Your task to perform on an android device: Play the last video I watched on Youtube Image 0: 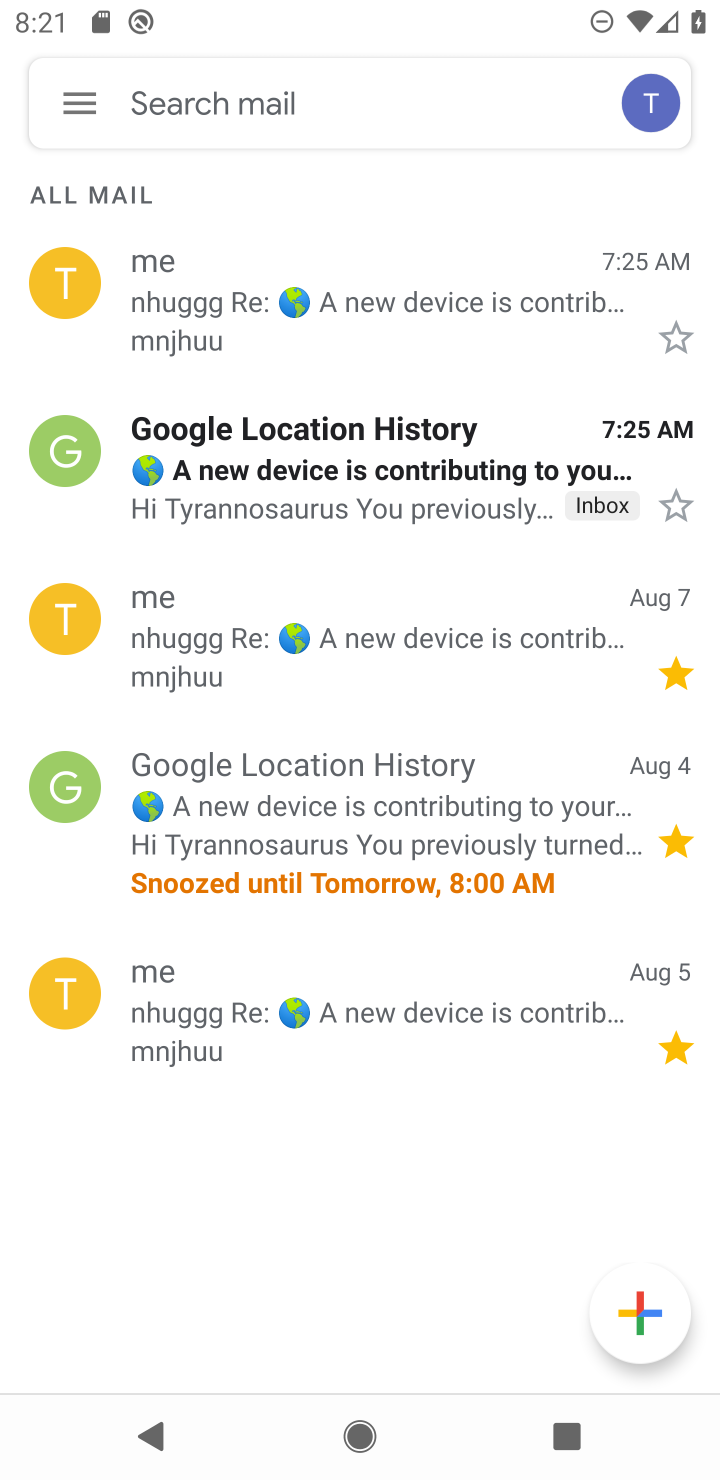
Step 0: press home button
Your task to perform on an android device: Play the last video I watched on Youtube Image 1: 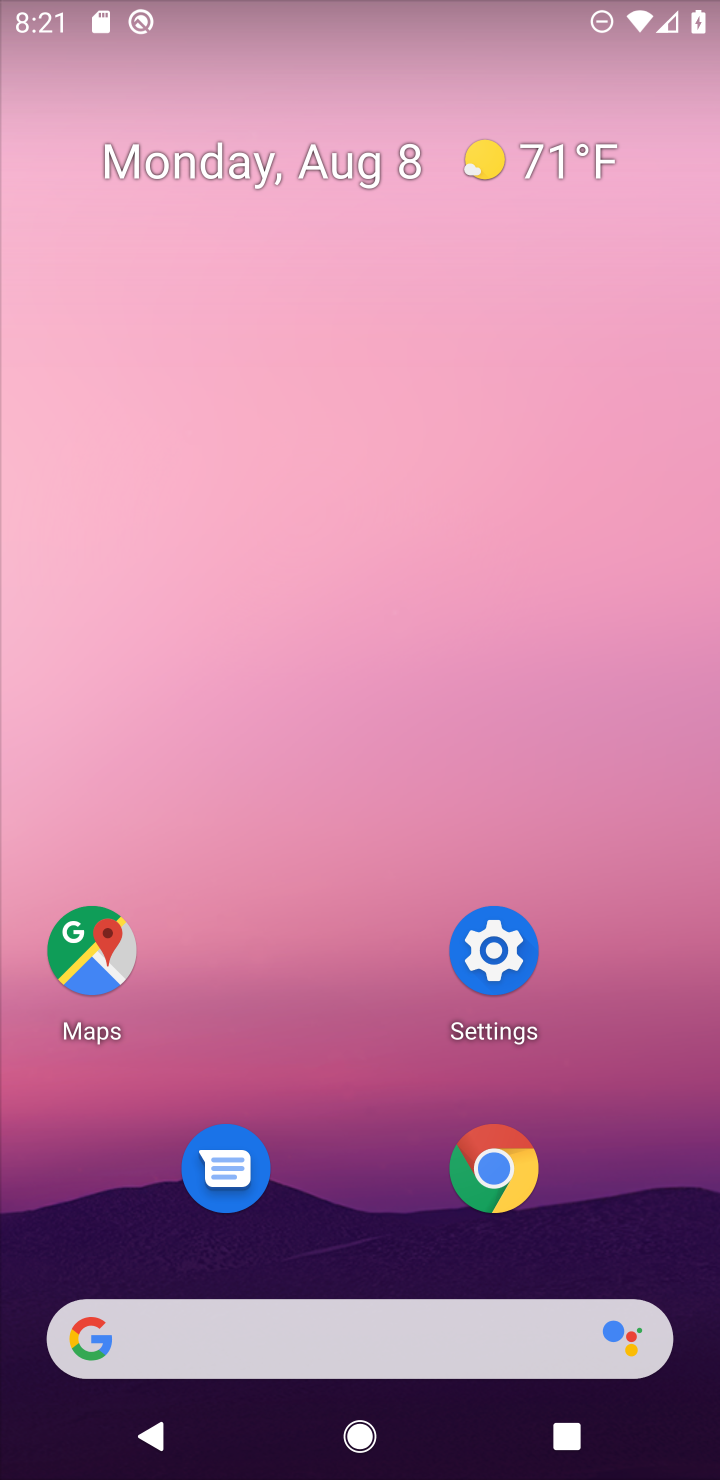
Step 1: drag from (362, 1304) to (459, 364)
Your task to perform on an android device: Play the last video I watched on Youtube Image 2: 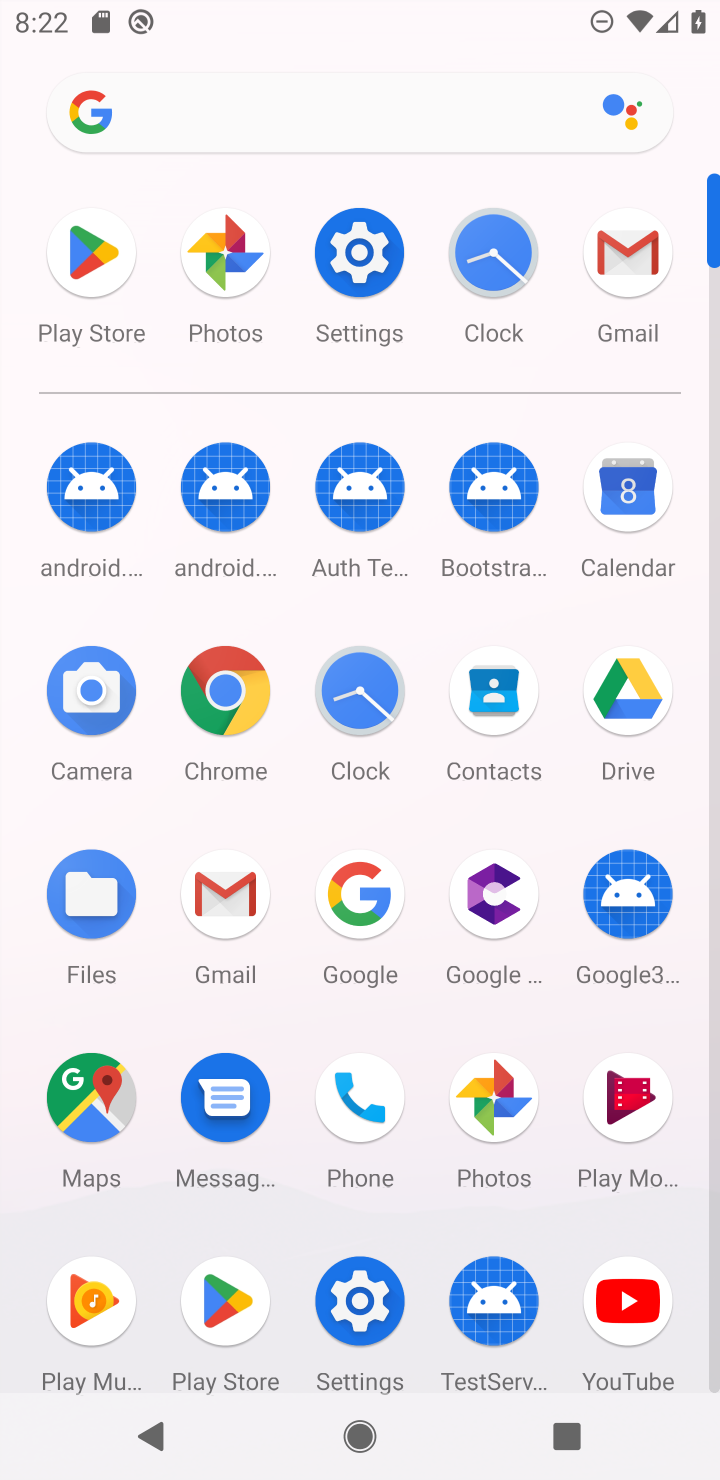
Step 2: click (631, 1301)
Your task to perform on an android device: Play the last video I watched on Youtube Image 3: 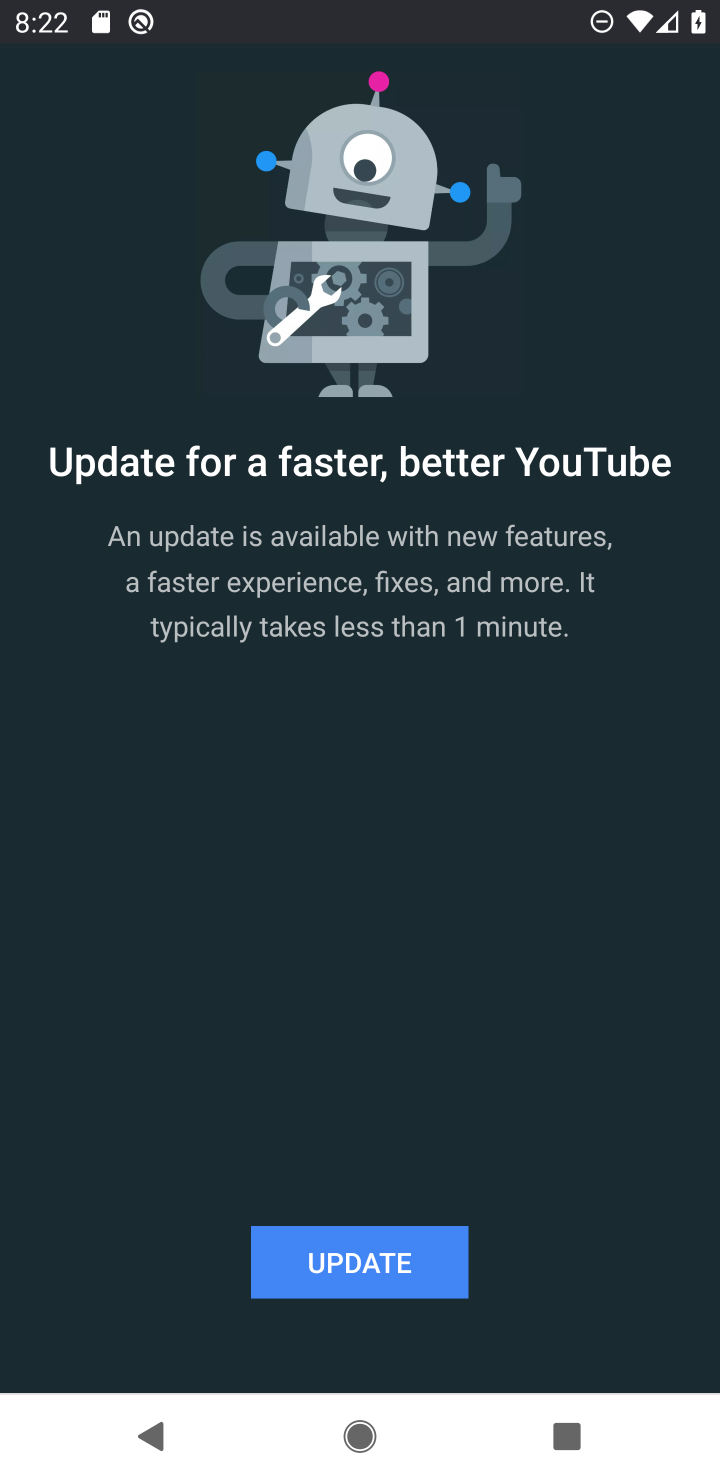
Step 3: click (407, 1263)
Your task to perform on an android device: Play the last video I watched on Youtube Image 4: 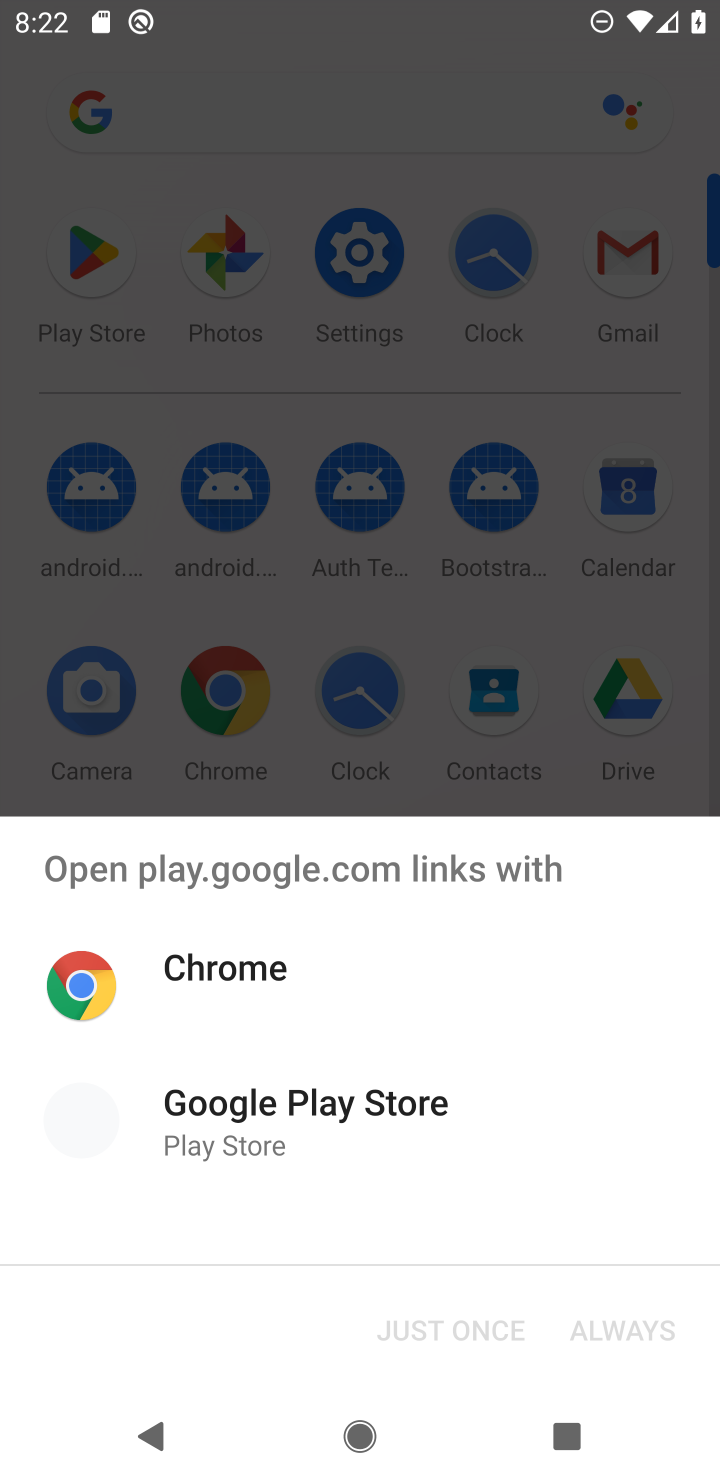
Step 4: click (256, 1119)
Your task to perform on an android device: Play the last video I watched on Youtube Image 5: 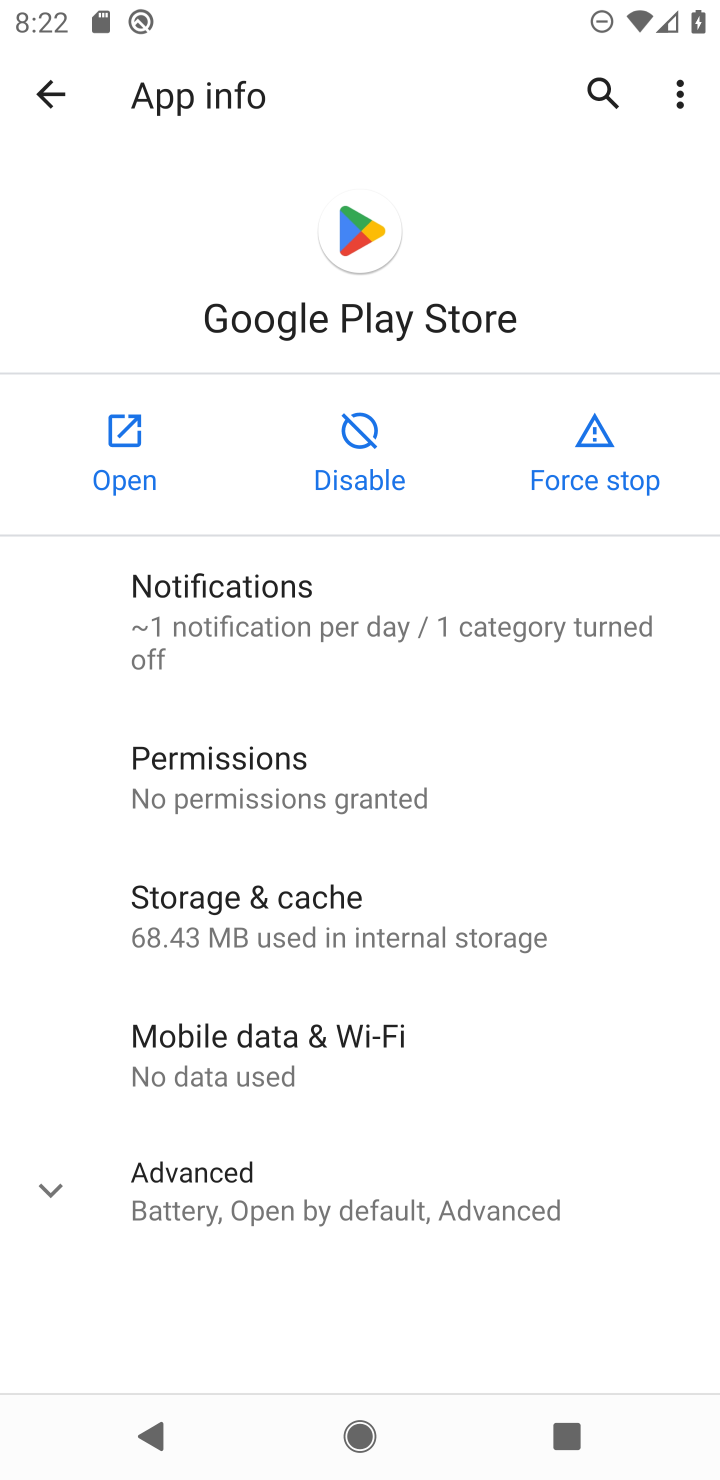
Step 5: click (52, 92)
Your task to perform on an android device: Play the last video I watched on Youtube Image 6: 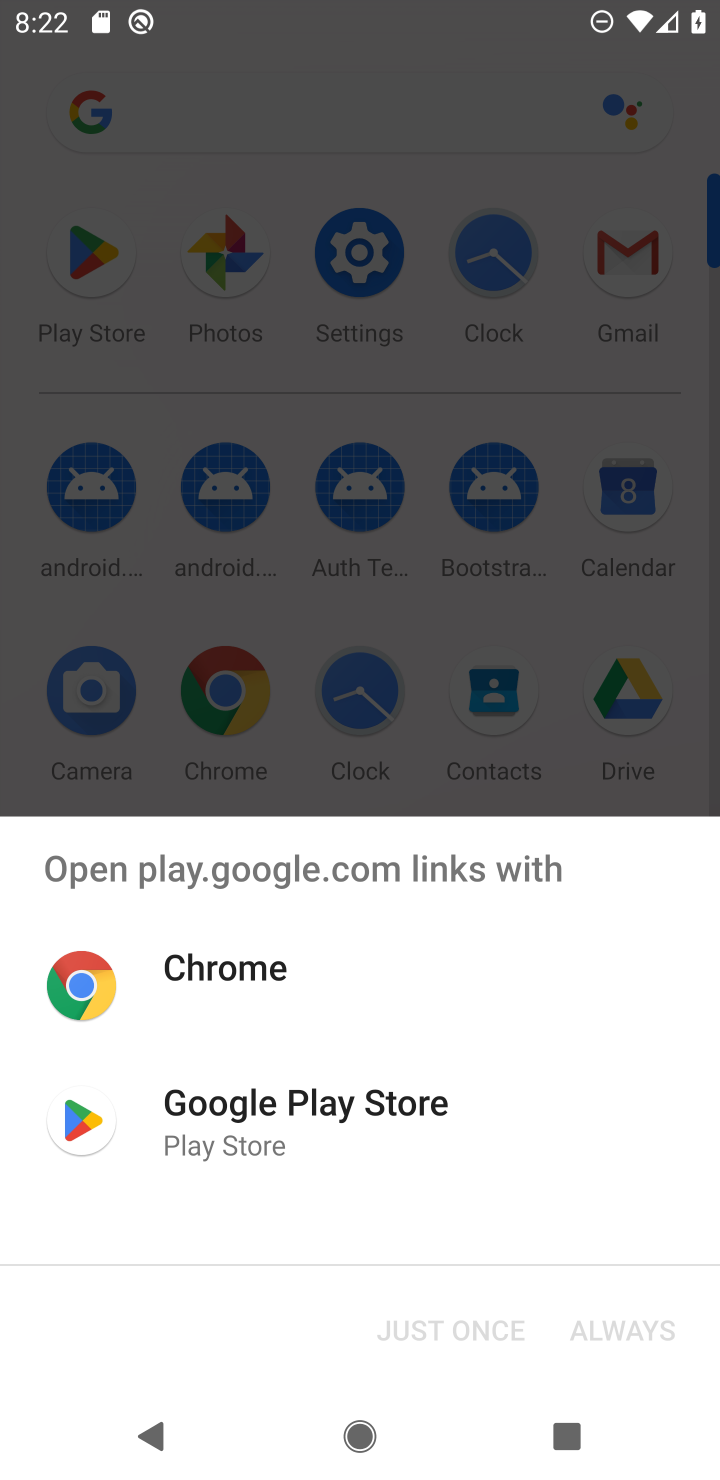
Step 6: click (213, 1146)
Your task to perform on an android device: Play the last video I watched on Youtube Image 7: 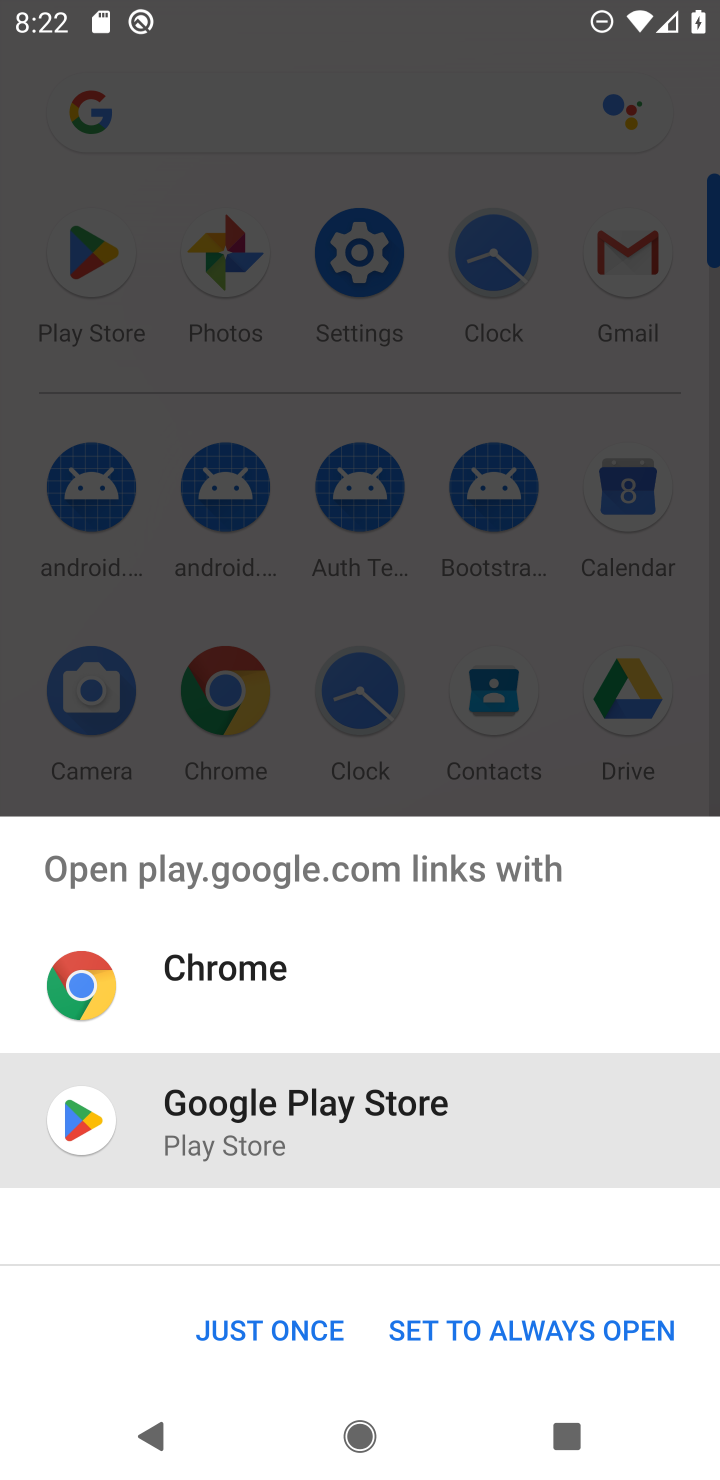
Step 7: click (266, 1342)
Your task to perform on an android device: Play the last video I watched on Youtube Image 8: 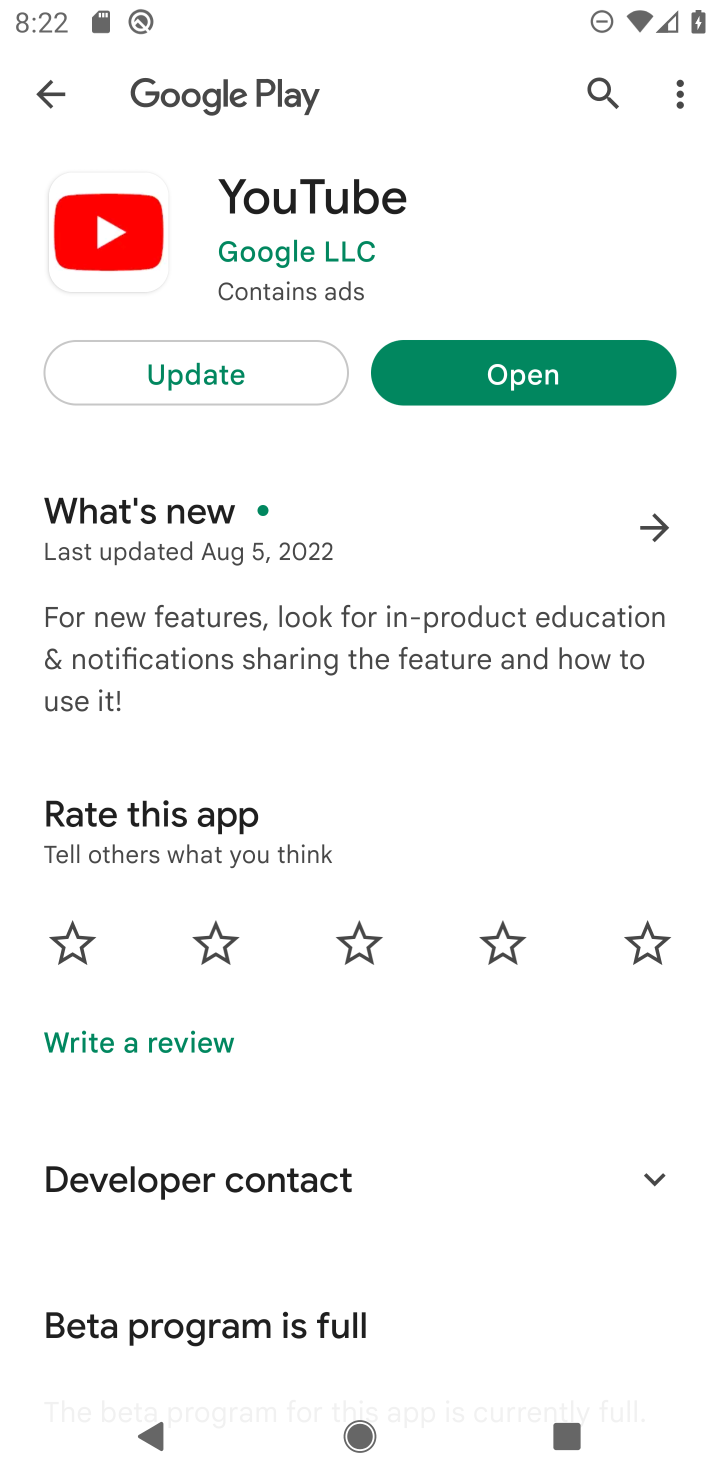
Step 8: click (248, 365)
Your task to perform on an android device: Play the last video I watched on Youtube Image 9: 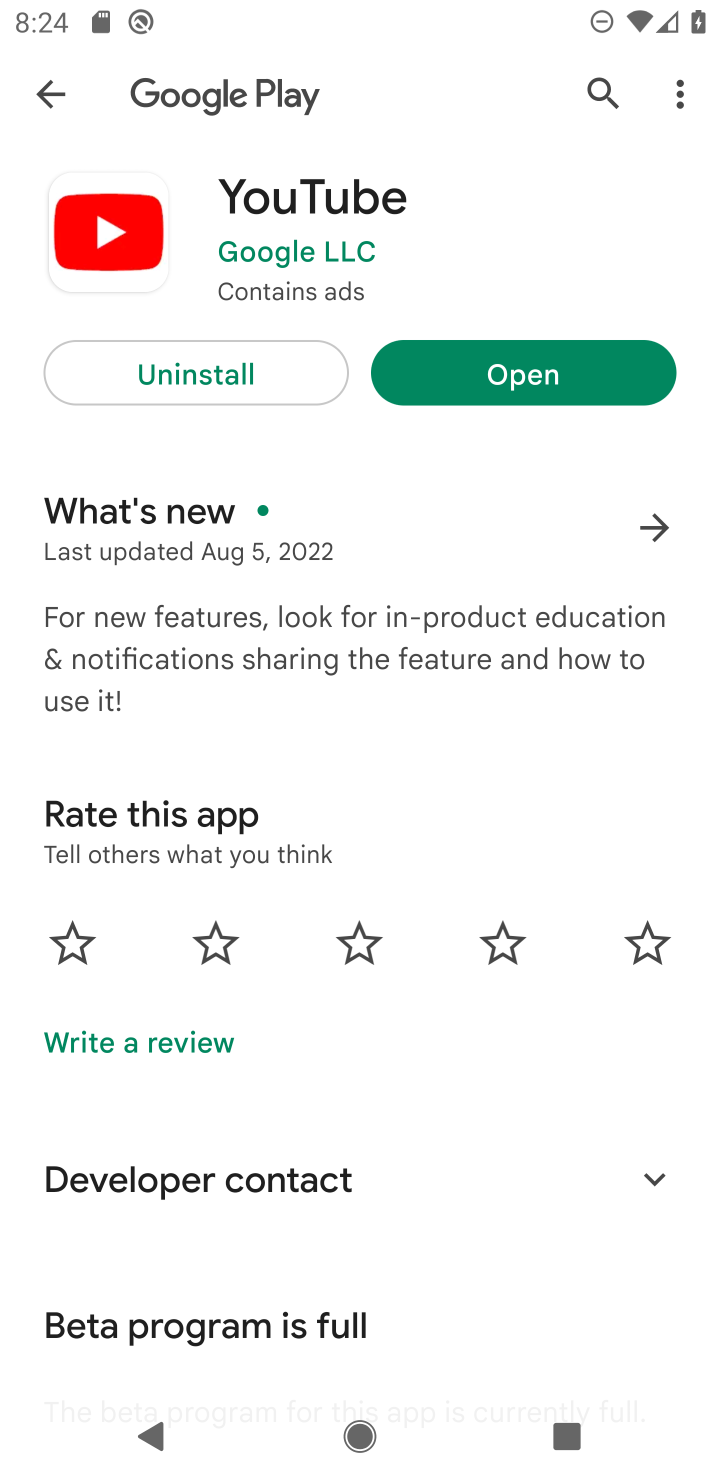
Step 9: click (594, 379)
Your task to perform on an android device: Play the last video I watched on Youtube Image 10: 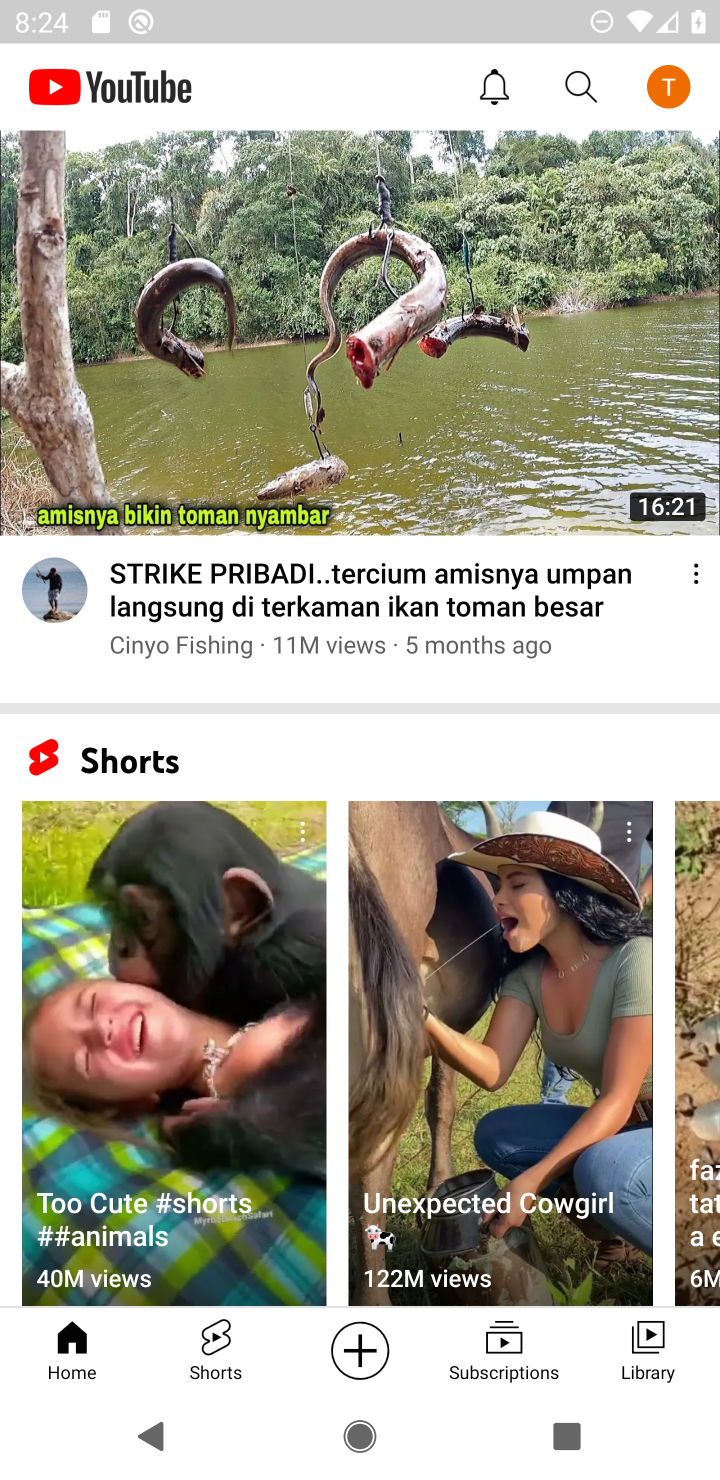
Step 10: click (655, 1356)
Your task to perform on an android device: Play the last video I watched on Youtube Image 11: 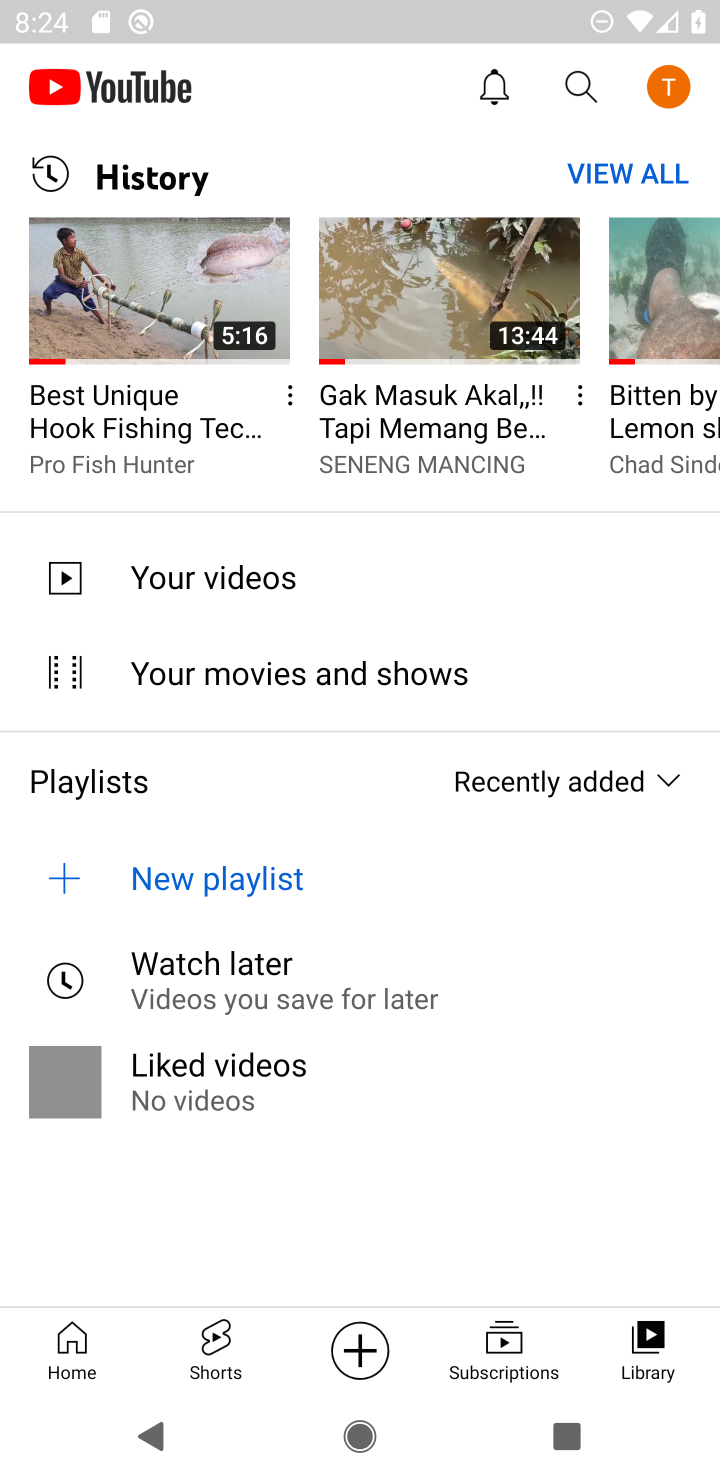
Step 11: click (168, 288)
Your task to perform on an android device: Play the last video I watched on Youtube Image 12: 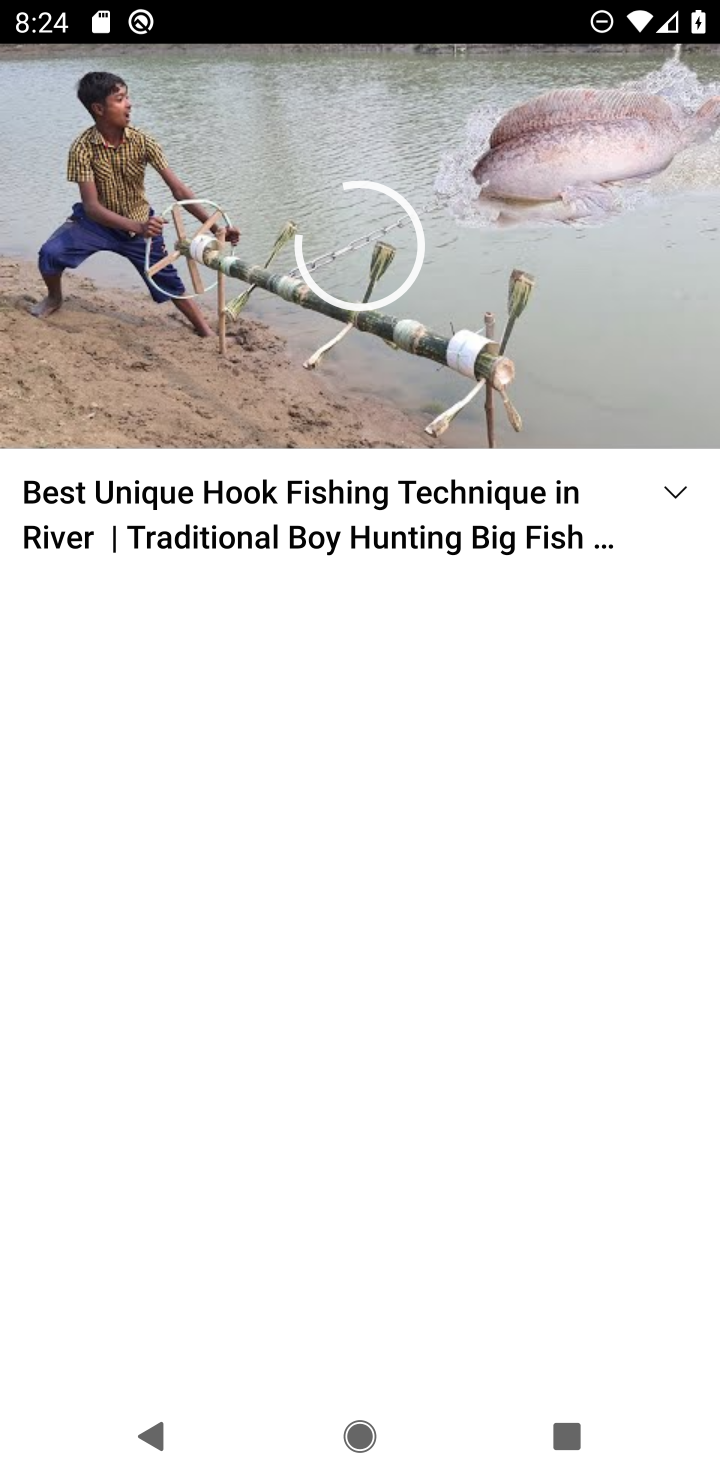
Step 12: click (339, 124)
Your task to perform on an android device: Play the last video I watched on Youtube Image 13: 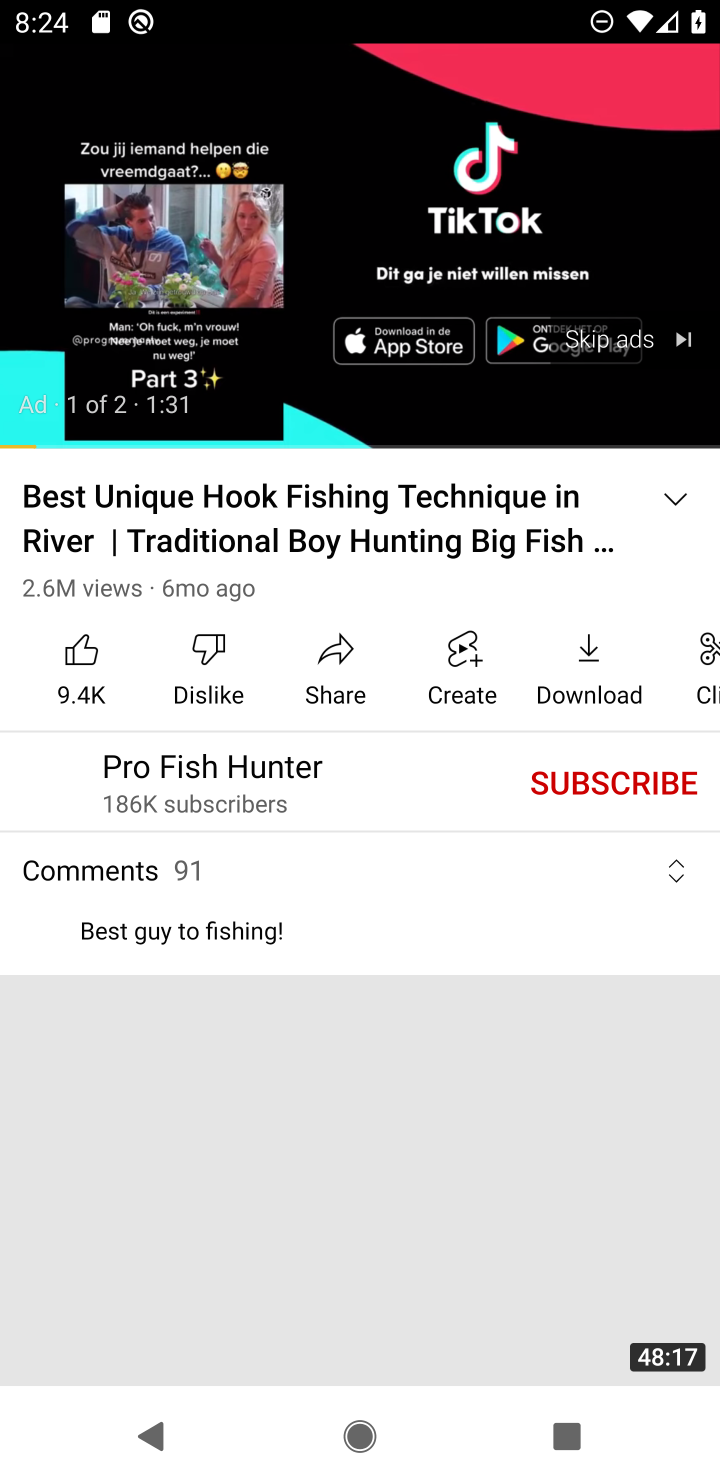
Step 13: click (611, 337)
Your task to perform on an android device: Play the last video I watched on Youtube Image 14: 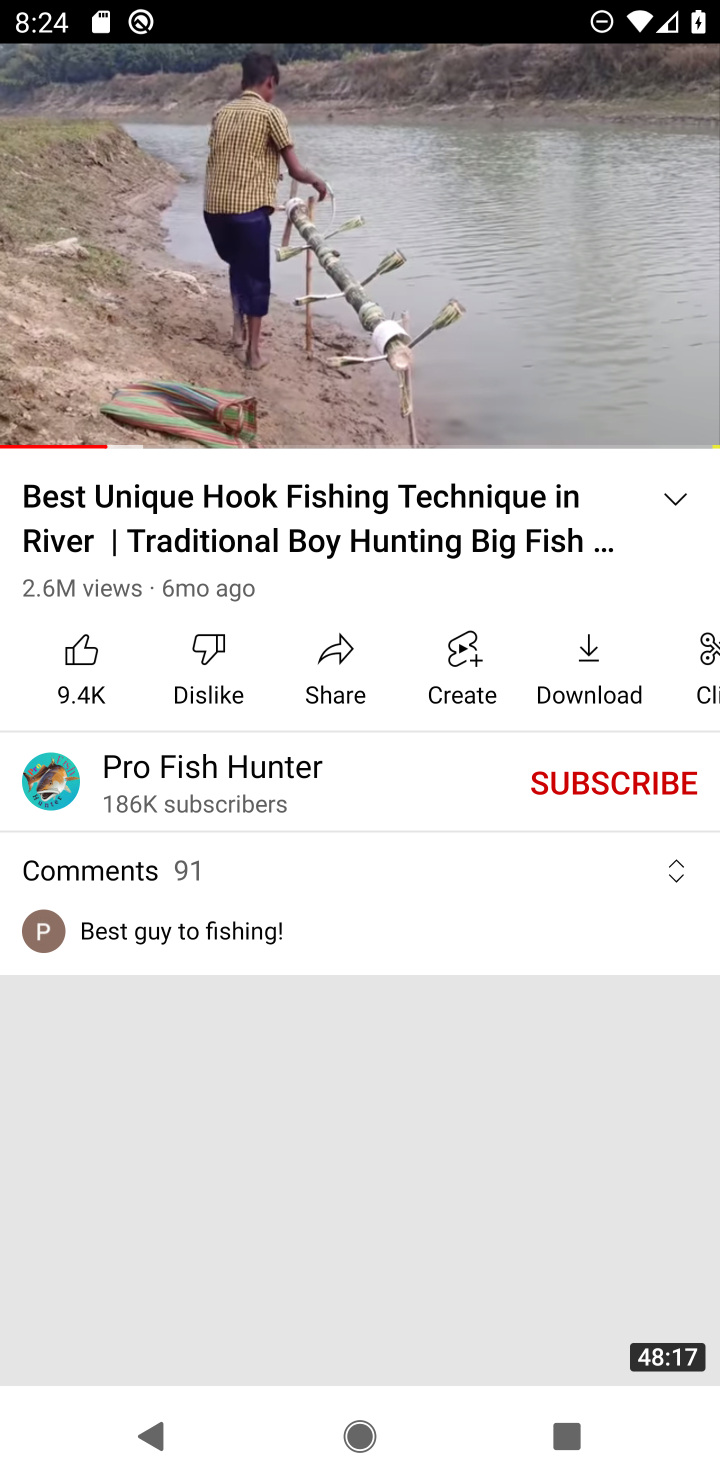
Step 14: click (374, 217)
Your task to perform on an android device: Play the last video I watched on Youtube Image 15: 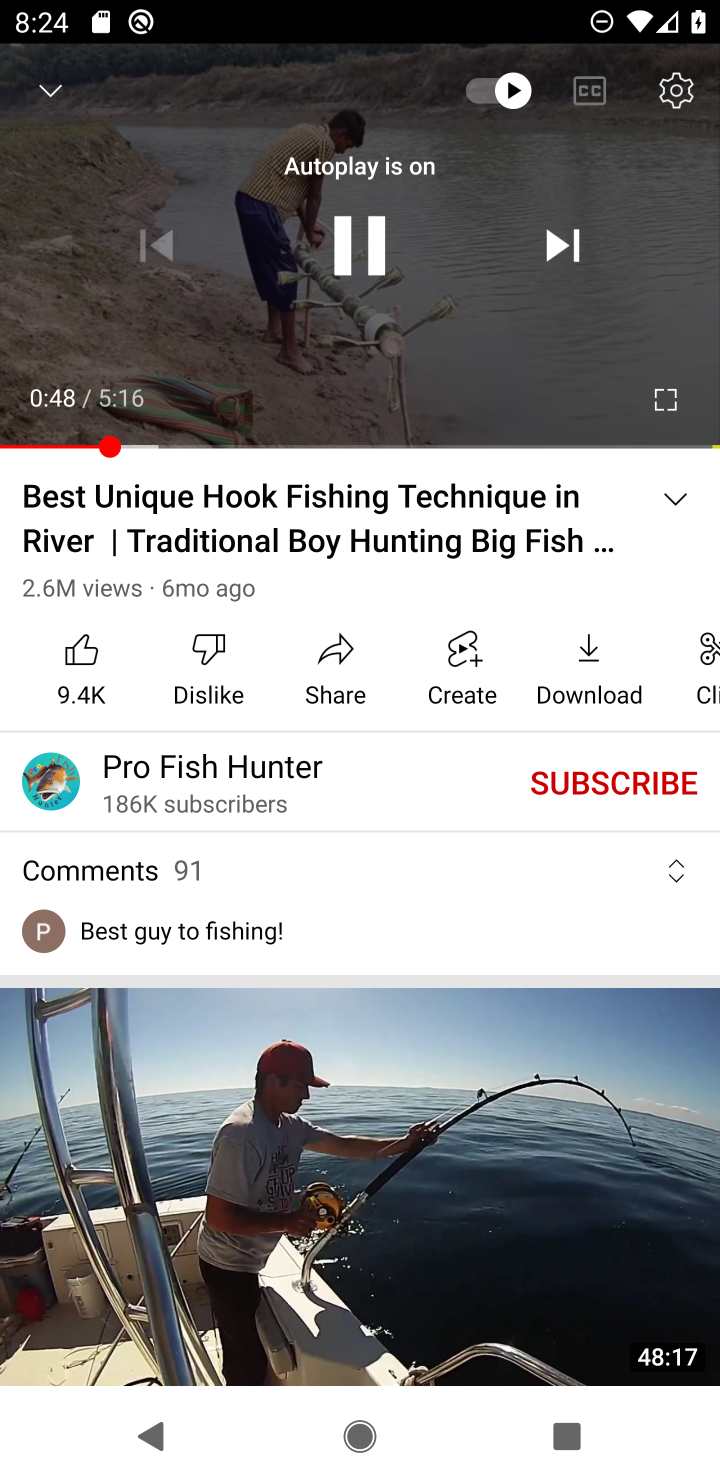
Step 15: click (393, 259)
Your task to perform on an android device: Play the last video I watched on Youtube Image 16: 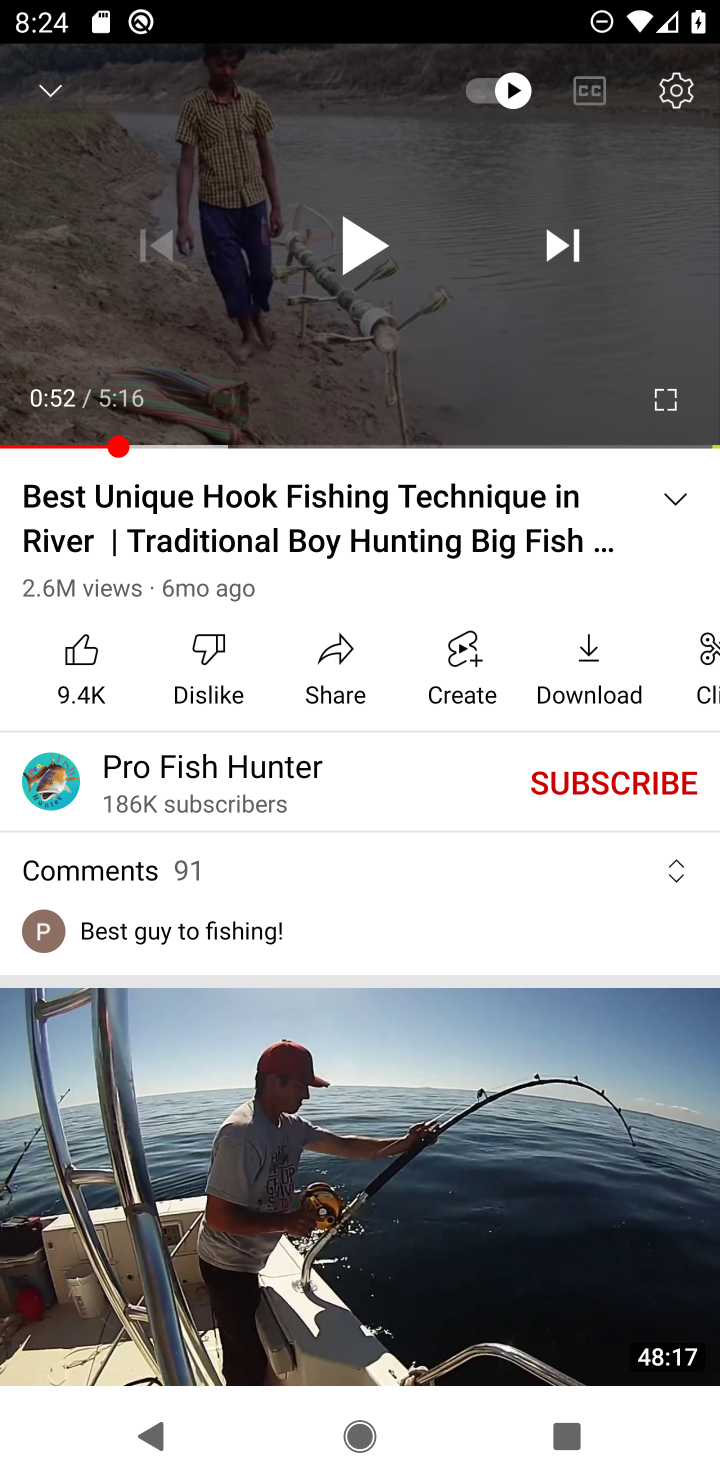
Step 16: task complete